Your task to perform on an android device: move an email to a new category in the gmail app Image 0: 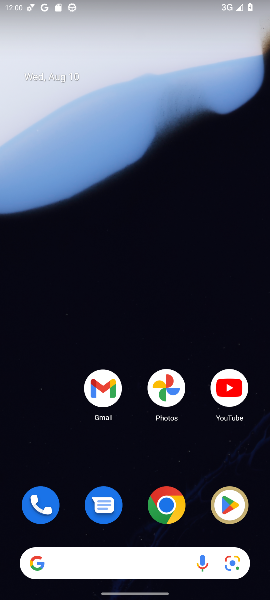
Step 0: press home button
Your task to perform on an android device: move an email to a new category in the gmail app Image 1: 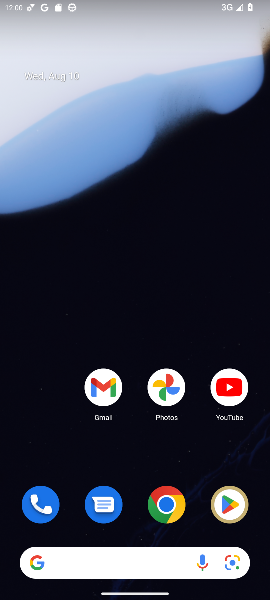
Step 1: click (102, 393)
Your task to perform on an android device: move an email to a new category in the gmail app Image 2: 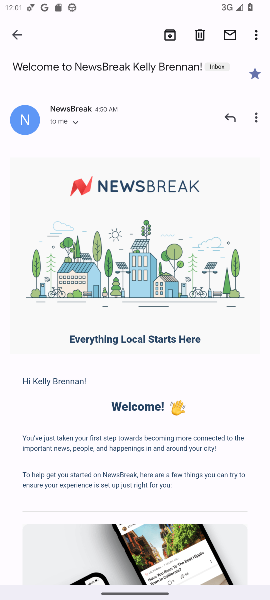
Step 2: click (257, 33)
Your task to perform on an android device: move an email to a new category in the gmail app Image 3: 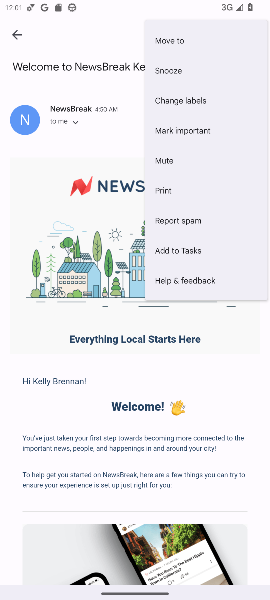
Step 3: click (179, 39)
Your task to perform on an android device: move an email to a new category in the gmail app Image 4: 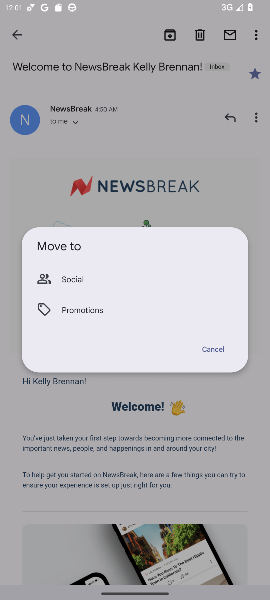
Step 4: click (75, 312)
Your task to perform on an android device: move an email to a new category in the gmail app Image 5: 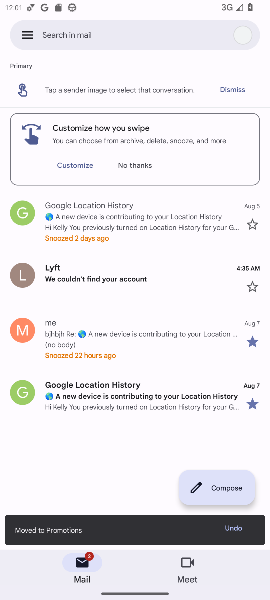
Step 5: task complete